Your task to perform on an android device: toggle javascript in the chrome app Image 0: 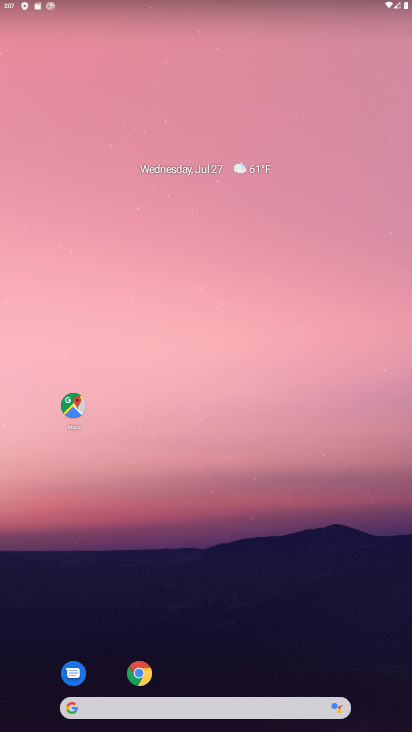
Step 0: click (145, 681)
Your task to perform on an android device: toggle javascript in the chrome app Image 1: 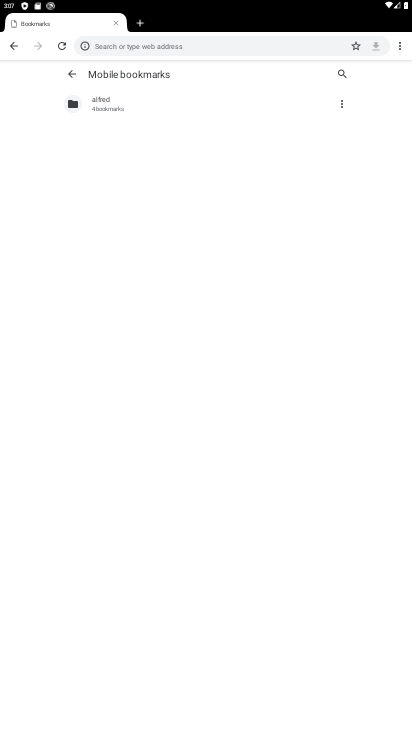
Step 1: click (404, 46)
Your task to perform on an android device: toggle javascript in the chrome app Image 2: 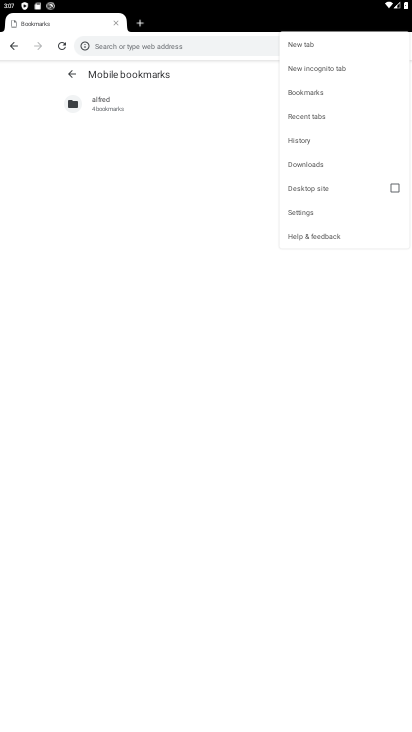
Step 2: click (304, 206)
Your task to perform on an android device: toggle javascript in the chrome app Image 3: 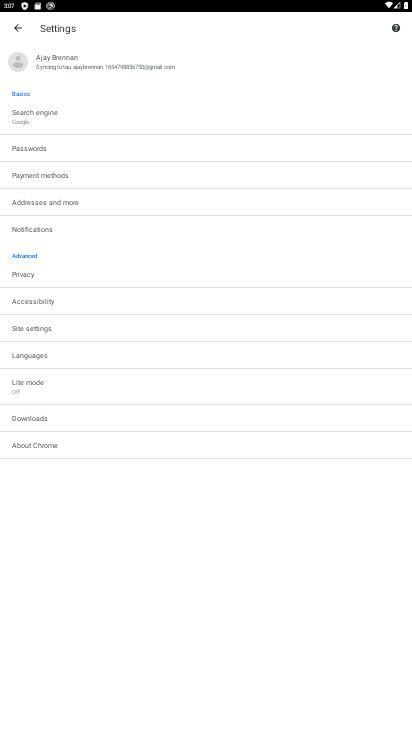
Step 3: click (61, 326)
Your task to perform on an android device: toggle javascript in the chrome app Image 4: 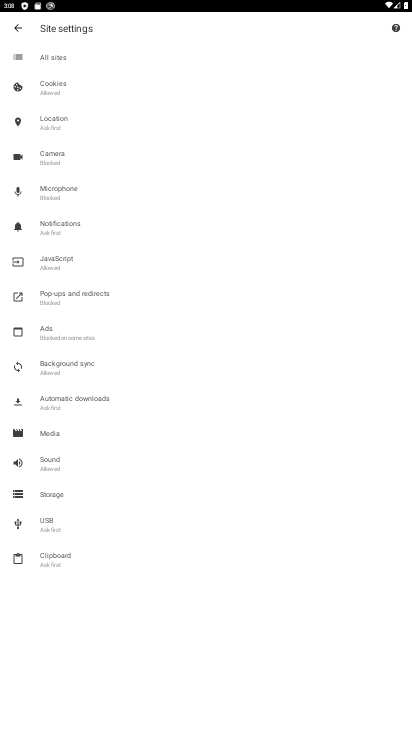
Step 4: click (58, 259)
Your task to perform on an android device: toggle javascript in the chrome app Image 5: 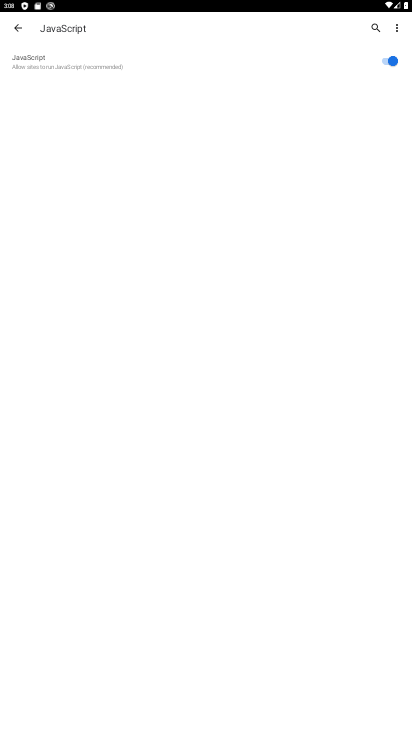
Step 5: click (392, 60)
Your task to perform on an android device: toggle javascript in the chrome app Image 6: 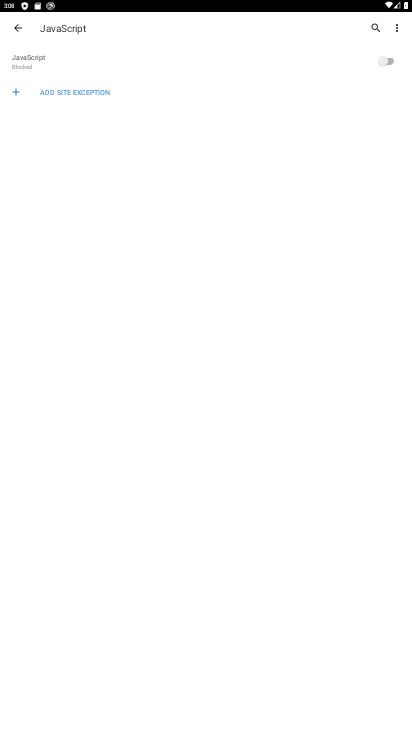
Step 6: task complete